Your task to perform on an android device: Open Wikipedia Image 0: 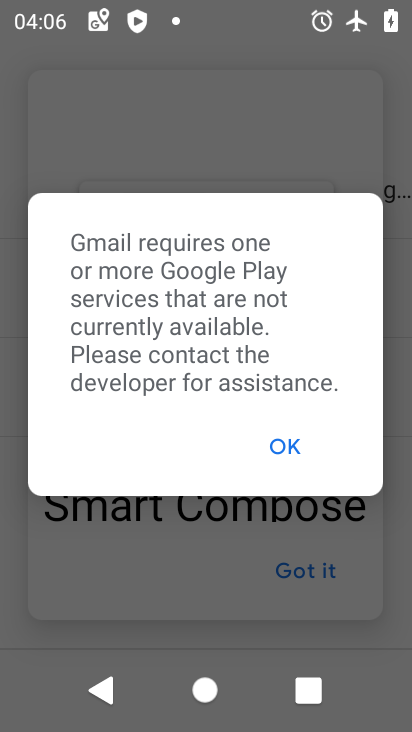
Step 0: press home button
Your task to perform on an android device: Open Wikipedia Image 1: 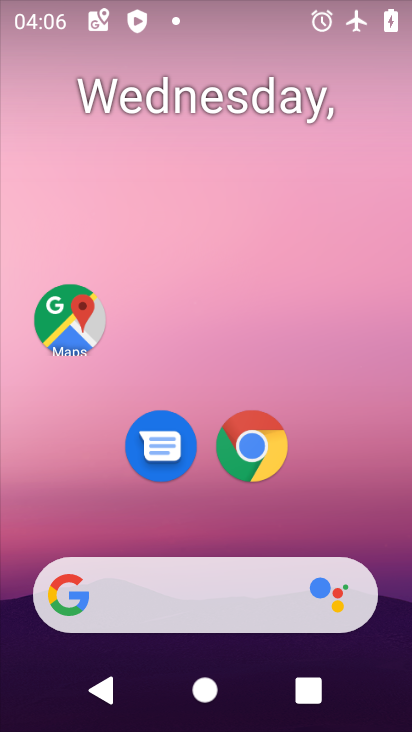
Step 1: click (232, 456)
Your task to perform on an android device: Open Wikipedia Image 2: 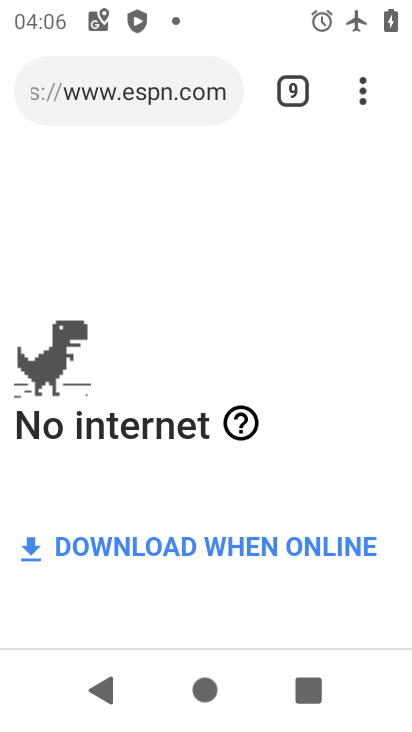
Step 2: click (272, 88)
Your task to perform on an android device: Open Wikipedia Image 3: 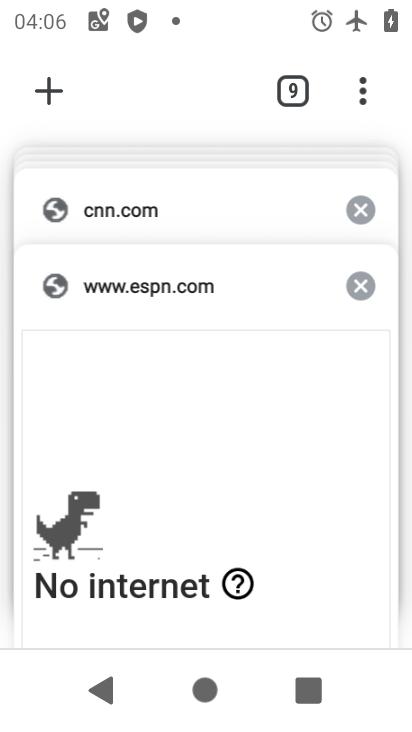
Step 3: click (44, 87)
Your task to perform on an android device: Open Wikipedia Image 4: 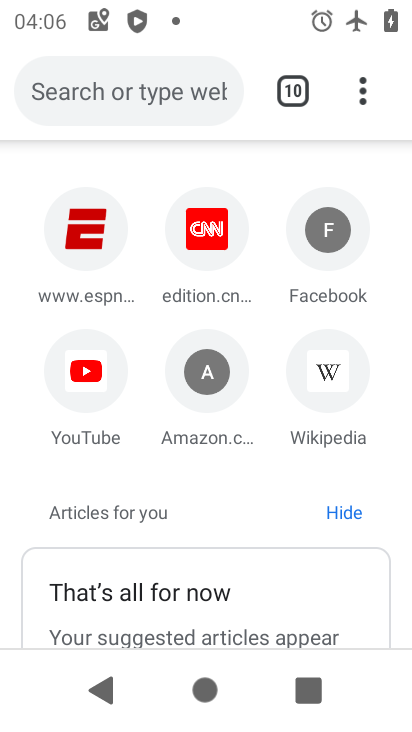
Step 4: click (140, 94)
Your task to perform on an android device: Open Wikipedia Image 5: 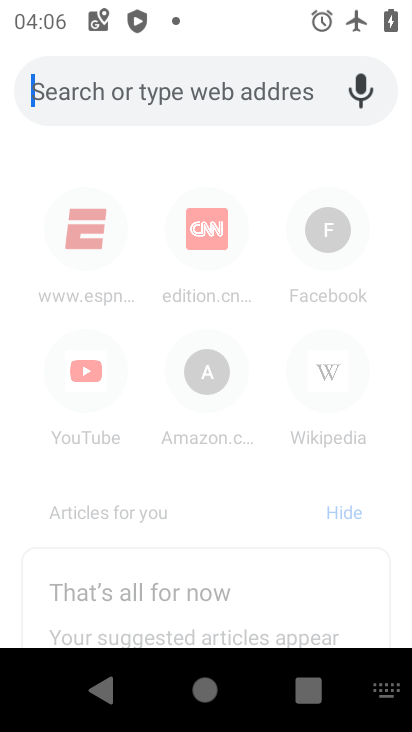
Step 5: click (329, 385)
Your task to perform on an android device: Open Wikipedia Image 6: 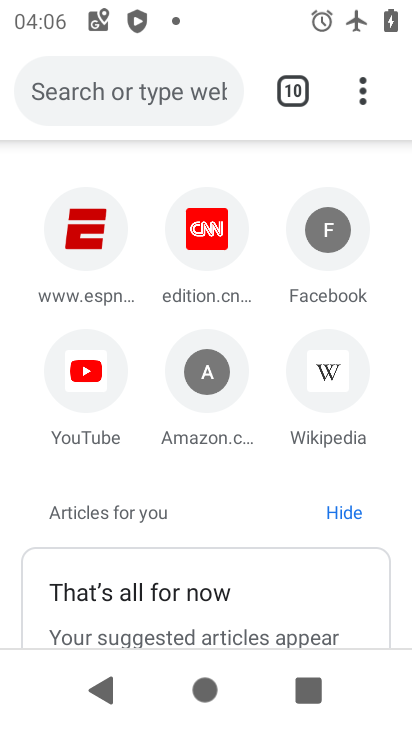
Step 6: click (329, 385)
Your task to perform on an android device: Open Wikipedia Image 7: 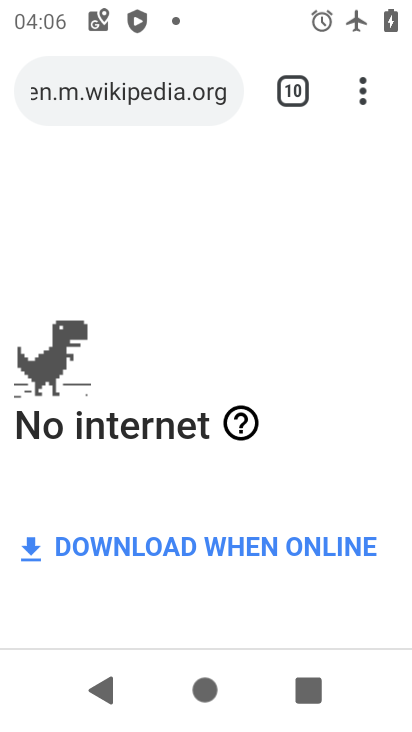
Step 7: task complete